Your task to perform on an android device: Open ESPN.com Image 0: 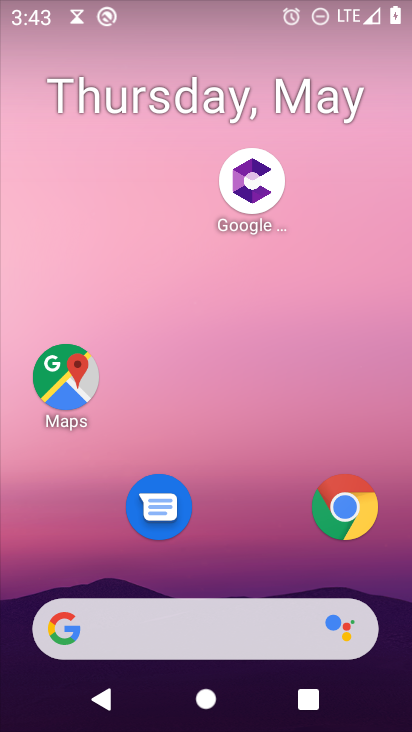
Step 0: press home button
Your task to perform on an android device: Open ESPN.com Image 1: 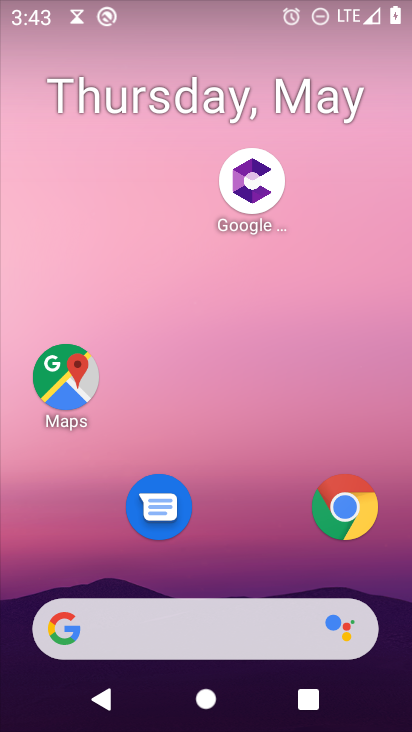
Step 1: click (52, 629)
Your task to perform on an android device: Open ESPN.com Image 2: 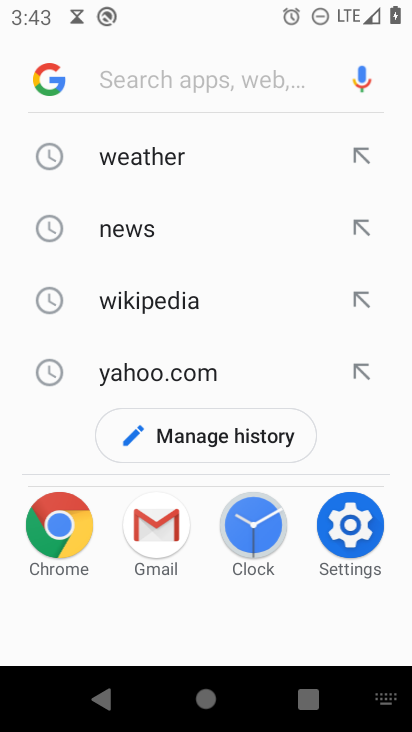
Step 2: type "ESPN.com"
Your task to perform on an android device: Open ESPN.com Image 3: 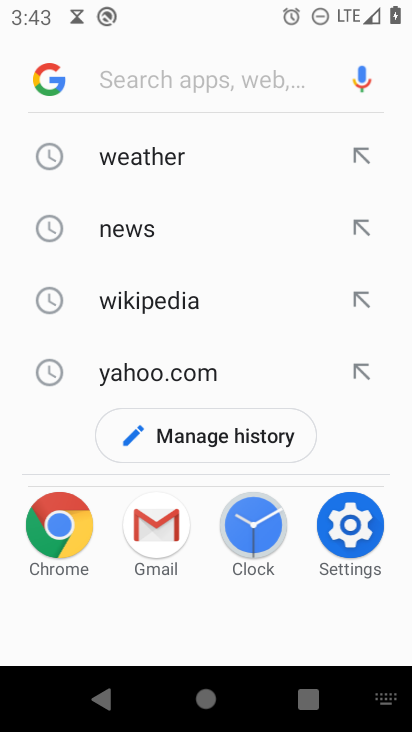
Step 3: click (153, 82)
Your task to perform on an android device: Open ESPN.com Image 4: 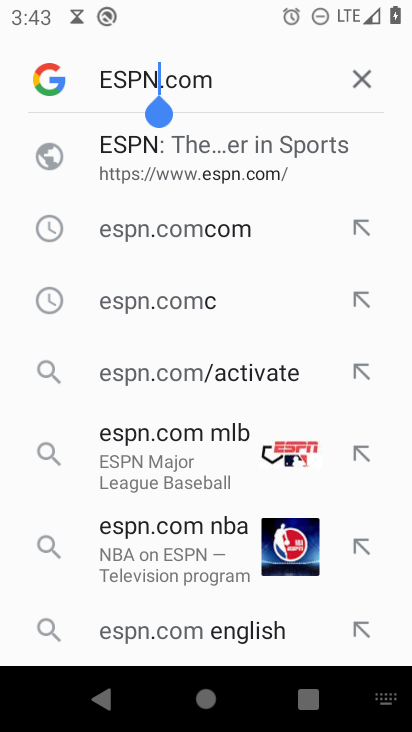
Step 4: click (191, 148)
Your task to perform on an android device: Open ESPN.com Image 5: 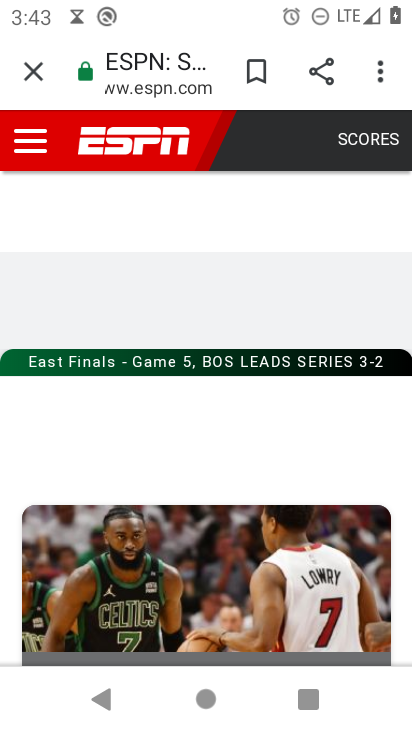
Step 5: task complete